Your task to perform on an android device: open app "Contacts" (install if not already installed) Image 0: 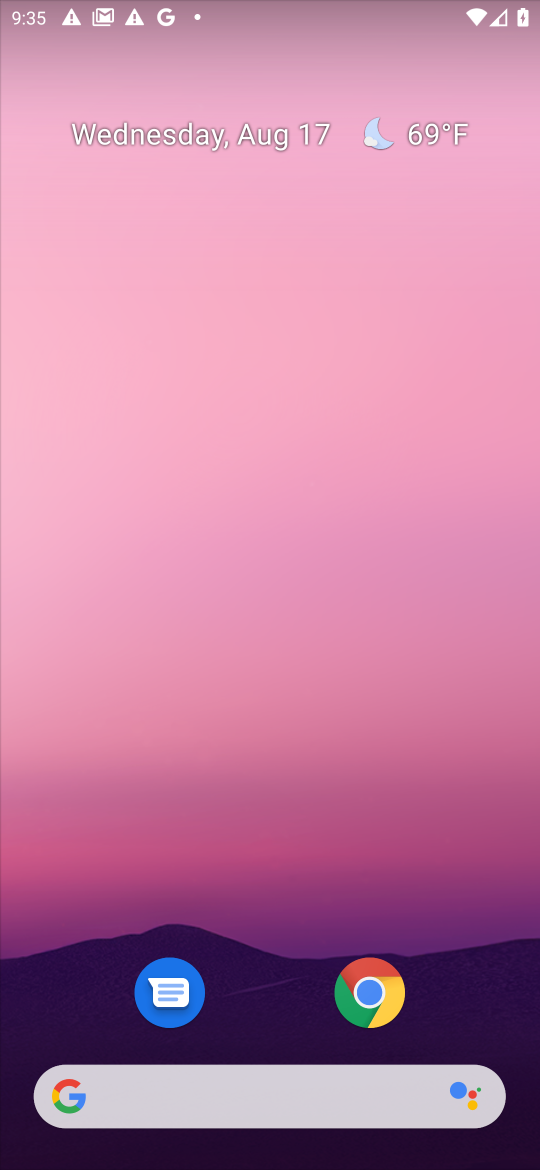
Step 0: drag from (511, 987) to (211, 38)
Your task to perform on an android device: open app "Contacts" (install if not already installed) Image 1: 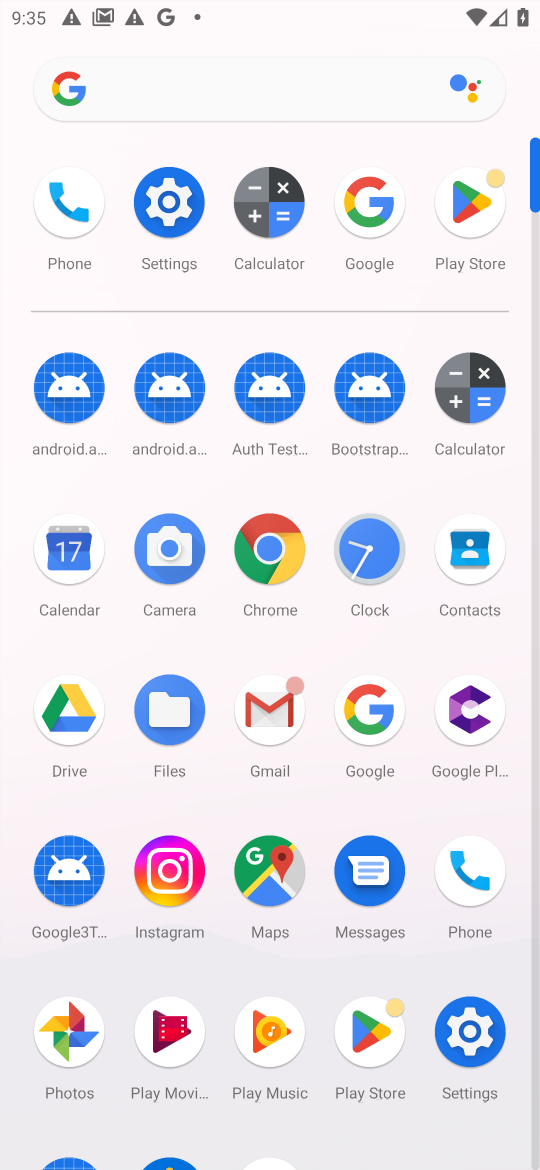
Step 1: click (360, 1040)
Your task to perform on an android device: open app "Contacts" (install if not already installed) Image 2: 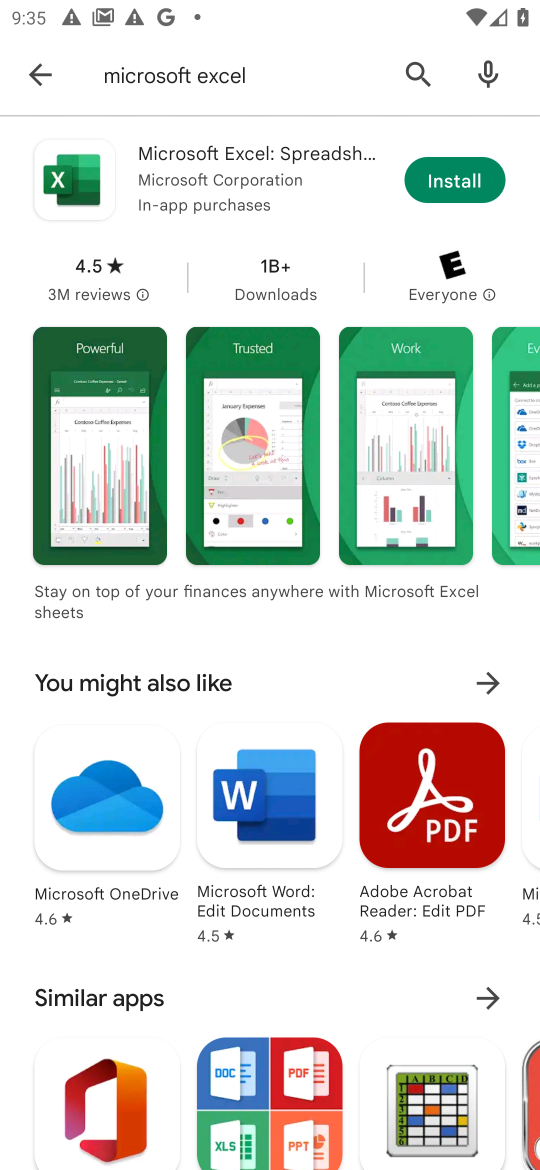
Step 2: press back button
Your task to perform on an android device: open app "Contacts" (install if not already installed) Image 3: 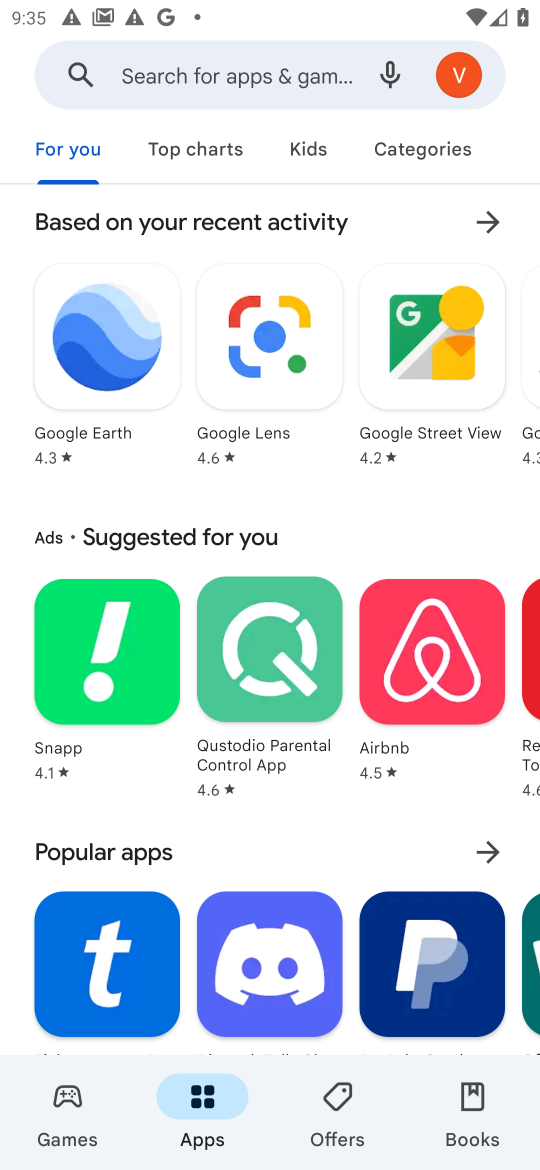
Step 3: click (166, 76)
Your task to perform on an android device: open app "Contacts" (install if not already installed) Image 4: 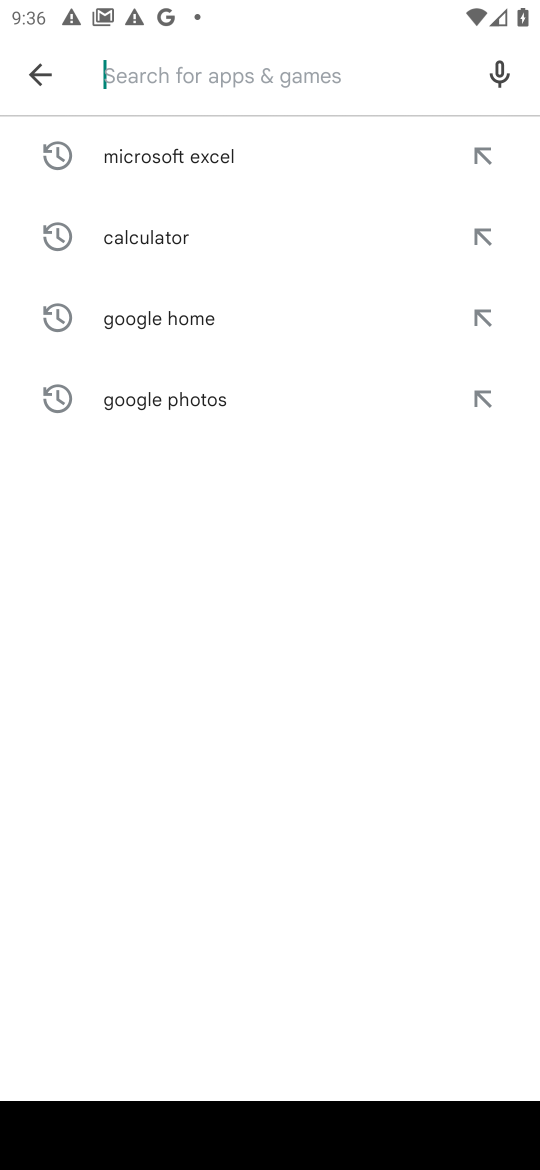
Step 4: type "Contacts"
Your task to perform on an android device: open app "Contacts" (install if not already installed) Image 5: 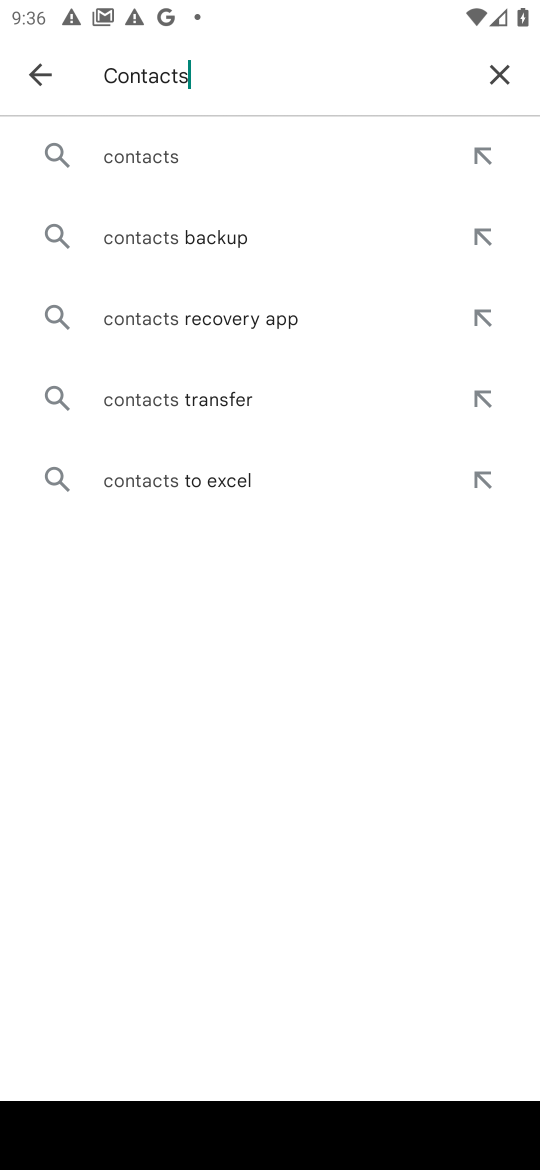
Step 5: click (155, 152)
Your task to perform on an android device: open app "Contacts" (install if not already installed) Image 6: 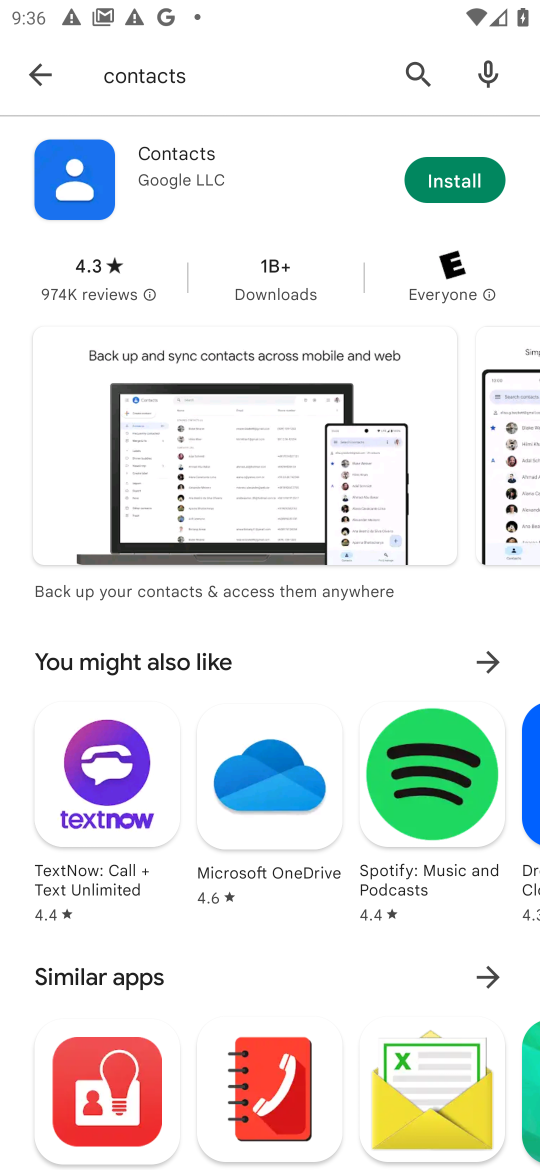
Step 6: task complete